Your task to perform on an android device: Go to network settings Image 0: 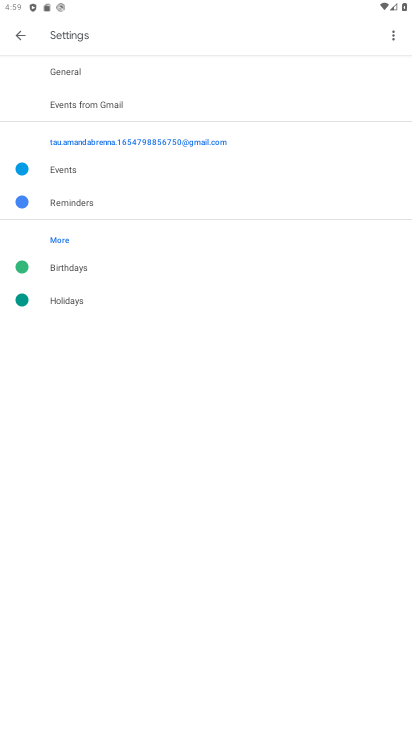
Step 0: press home button
Your task to perform on an android device: Go to network settings Image 1: 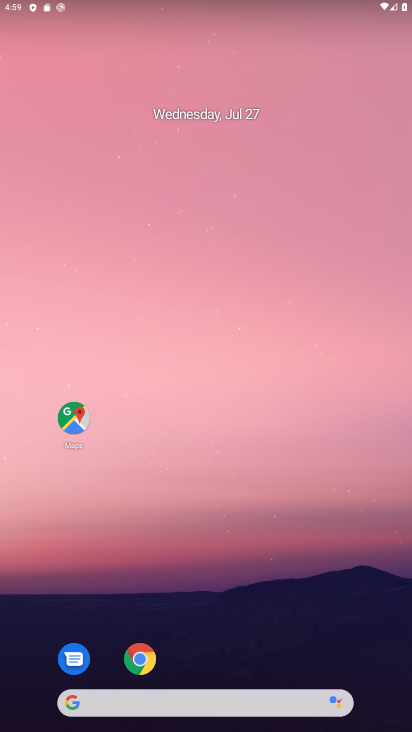
Step 1: drag from (219, 626) to (290, 67)
Your task to perform on an android device: Go to network settings Image 2: 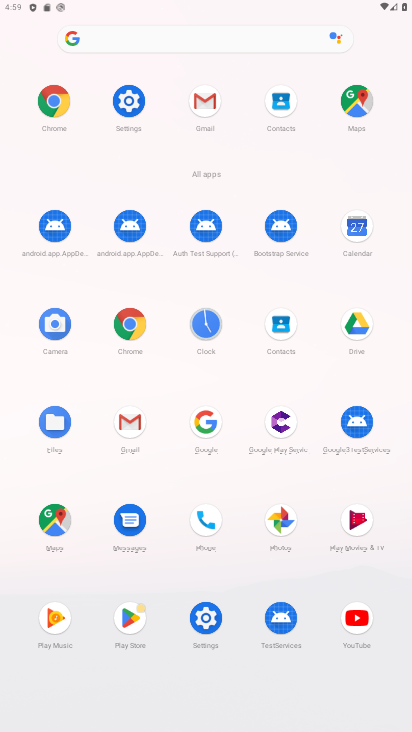
Step 2: click (133, 94)
Your task to perform on an android device: Go to network settings Image 3: 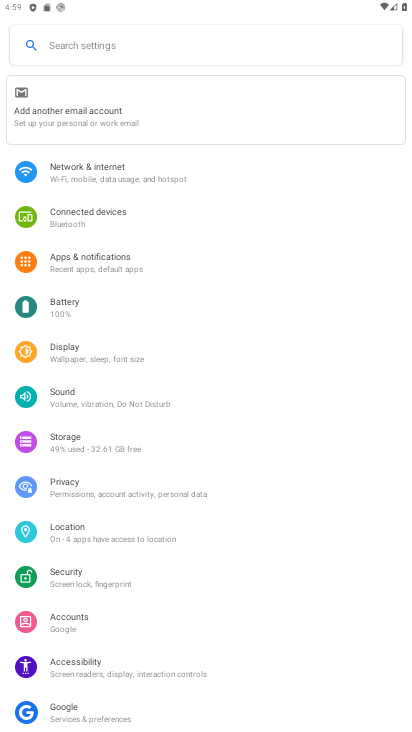
Step 3: click (101, 183)
Your task to perform on an android device: Go to network settings Image 4: 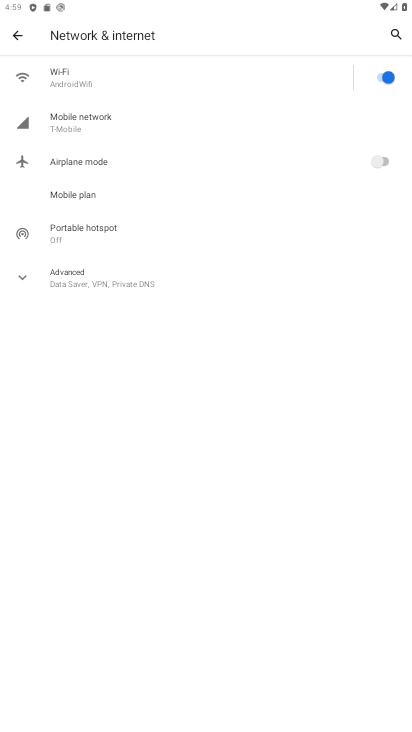
Step 4: task complete